Your task to perform on an android device: Go to eBay Image 0: 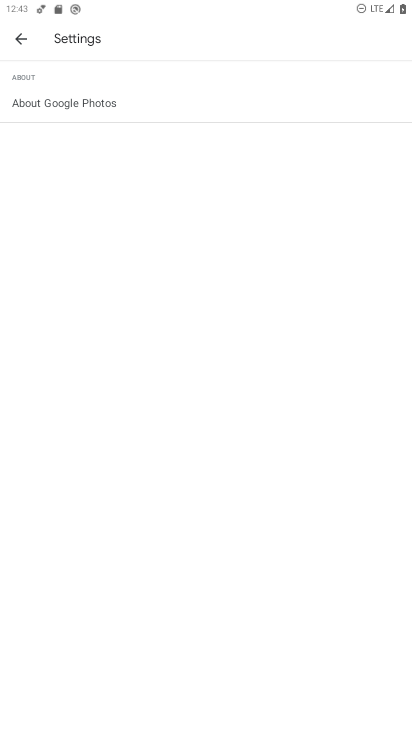
Step 0: drag from (273, 483) to (399, 244)
Your task to perform on an android device: Go to eBay Image 1: 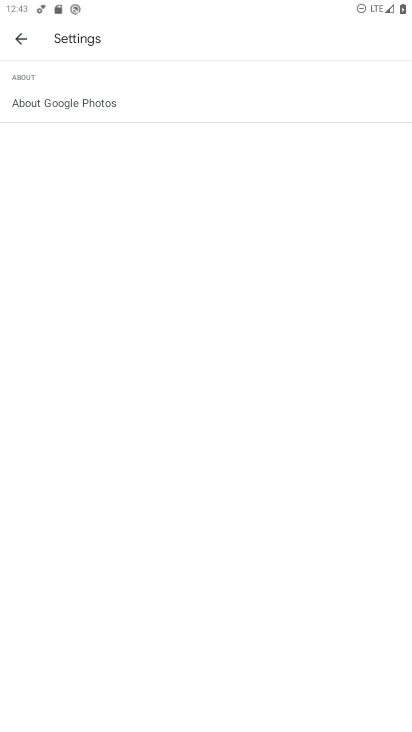
Step 1: drag from (273, 345) to (371, 105)
Your task to perform on an android device: Go to eBay Image 2: 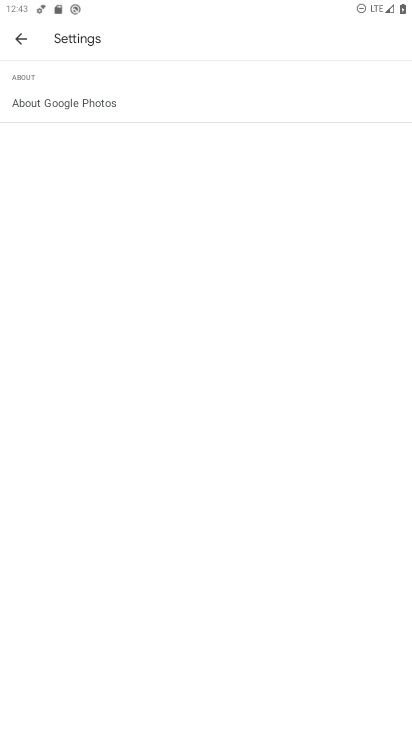
Step 2: drag from (202, 217) to (251, 675)
Your task to perform on an android device: Go to eBay Image 3: 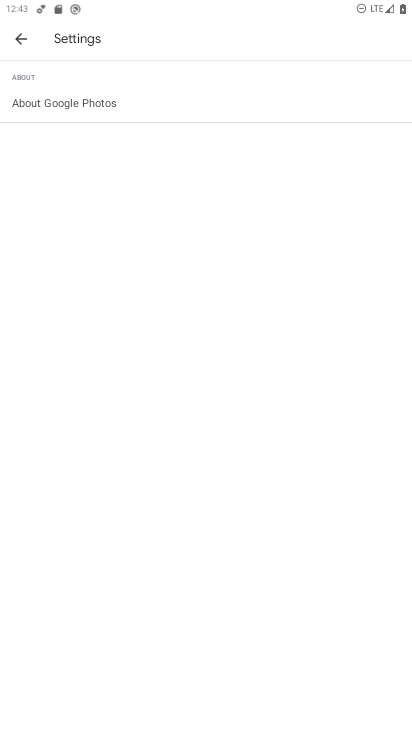
Step 3: drag from (172, 565) to (247, 331)
Your task to perform on an android device: Go to eBay Image 4: 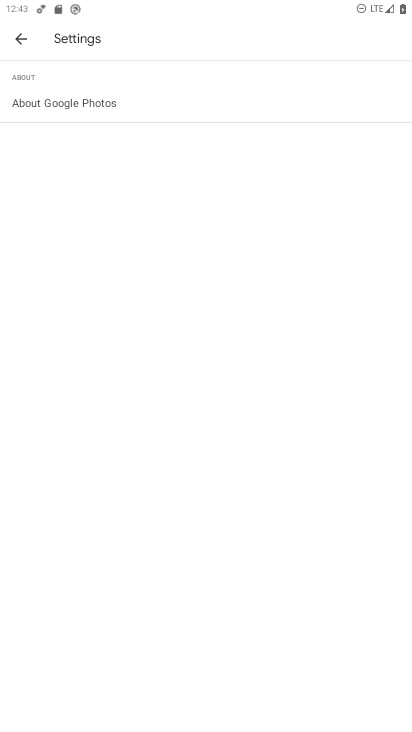
Step 4: press home button
Your task to perform on an android device: Go to eBay Image 5: 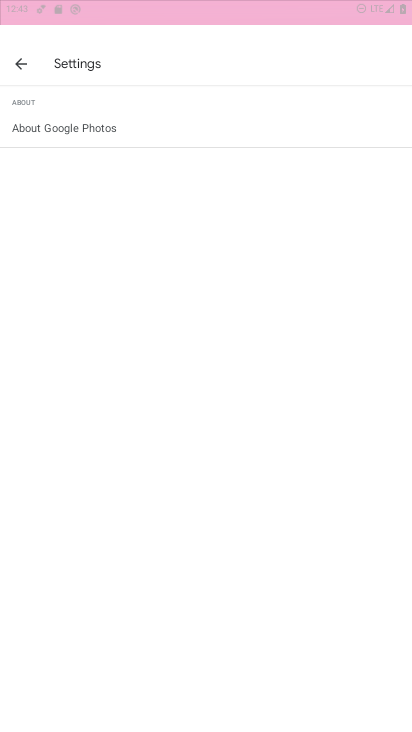
Step 5: drag from (148, 547) to (231, 4)
Your task to perform on an android device: Go to eBay Image 6: 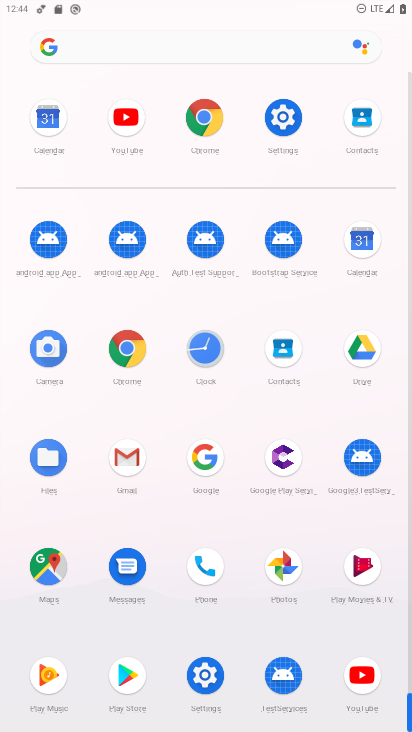
Step 6: click (110, 52)
Your task to perform on an android device: Go to eBay Image 7: 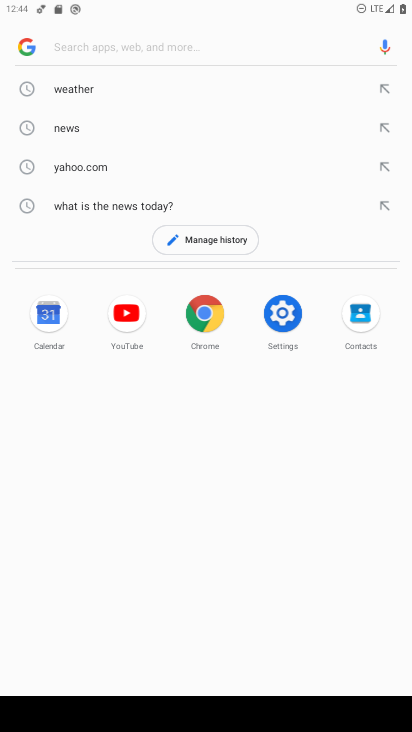
Step 7: type "eBay"
Your task to perform on an android device: Go to eBay Image 8: 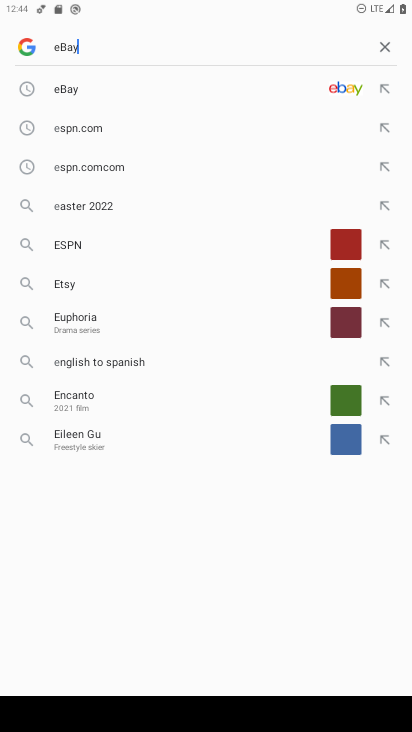
Step 8: type ""
Your task to perform on an android device: Go to eBay Image 9: 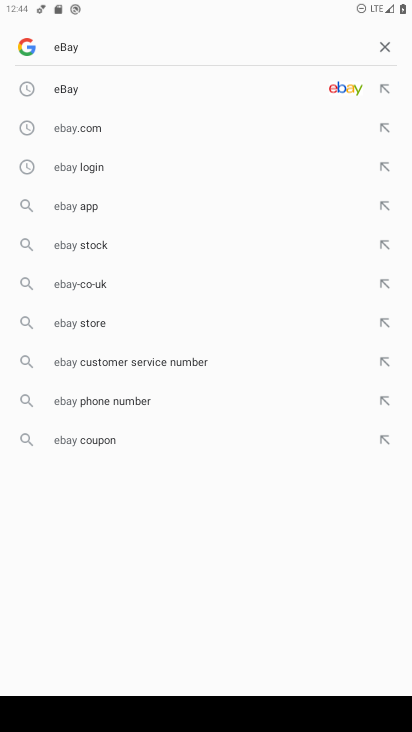
Step 9: click (152, 84)
Your task to perform on an android device: Go to eBay Image 10: 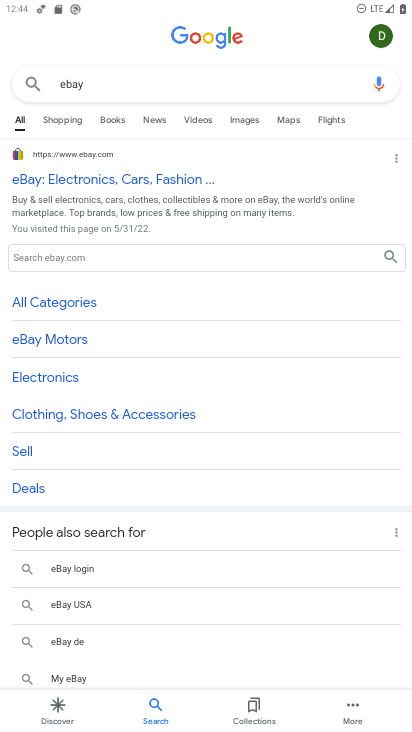
Step 10: click (79, 180)
Your task to perform on an android device: Go to eBay Image 11: 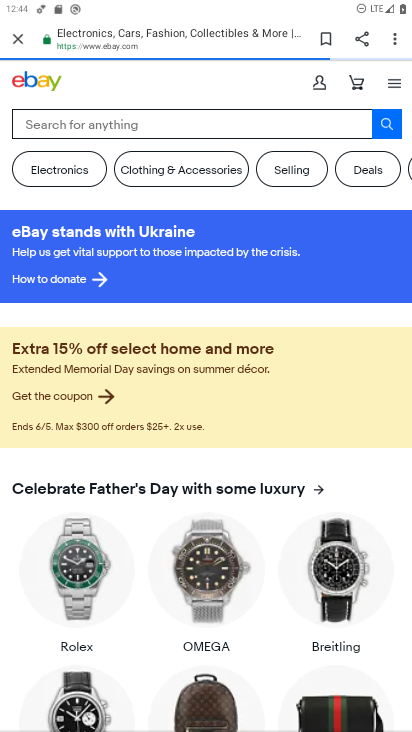
Step 11: task complete